Your task to perform on an android device: Open Wikipedia Image 0: 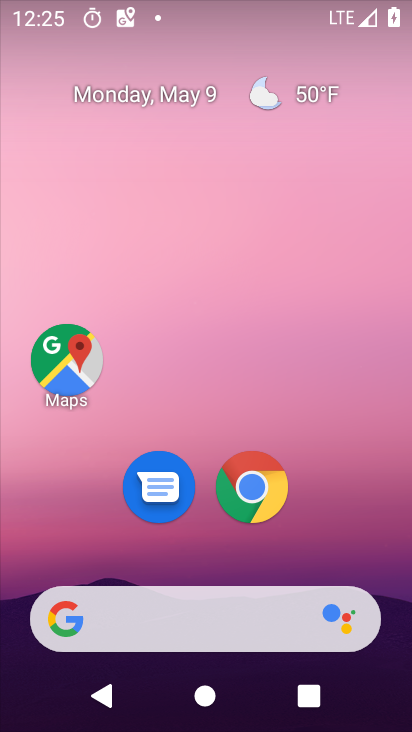
Step 0: press home button
Your task to perform on an android device: Open Wikipedia Image 1: 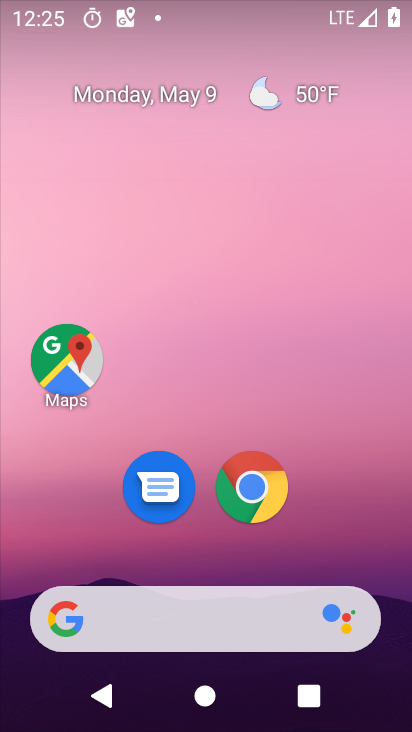
Step 1: drag from (328, 443) to (352, 135)
Your task to perform on an android device: Open Wikipedia Image 2: 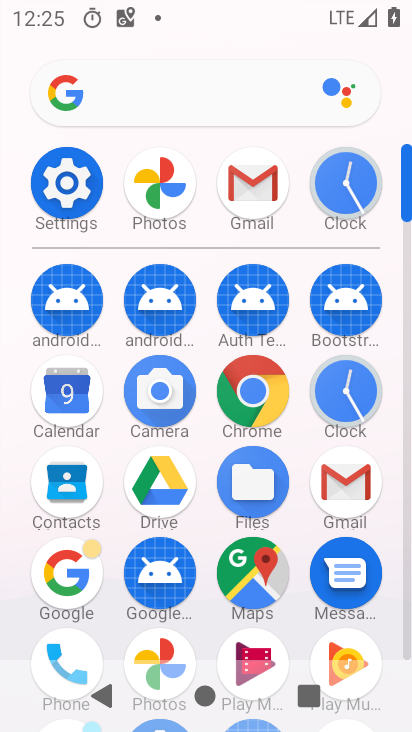
Step 2: click (242, 389)
Your task to perform on an android device: Open Wikipedia Image 3: 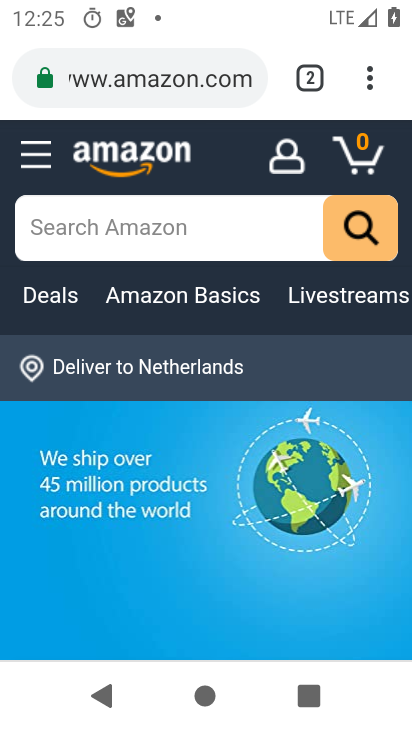
Step 3: click (155, 96)
Your task to perform on an android device: Open Wikipedia Image 4: 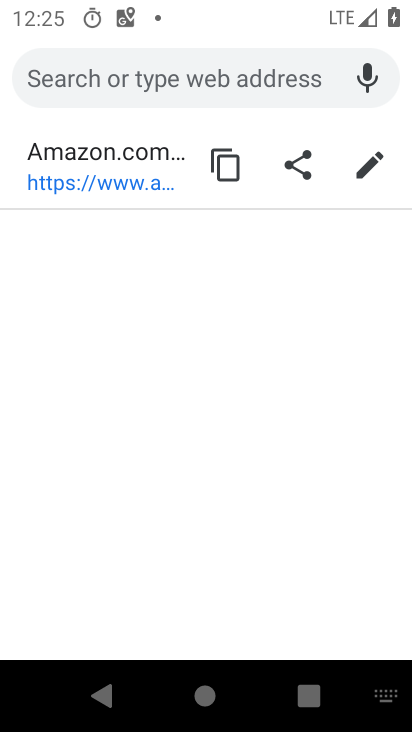
Step 4: type "wikipedia"
Your task to perform on an android device: Open Wikipedia Image 5: 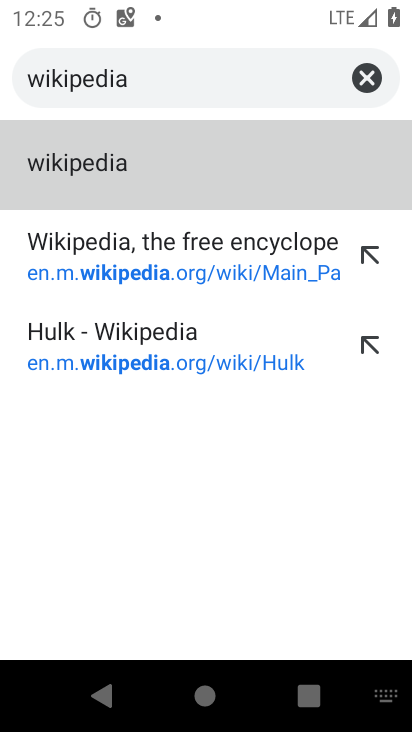
Step 5: click (74, 168)
Your task to perform on an android device: Open Wikipedia Image 6: 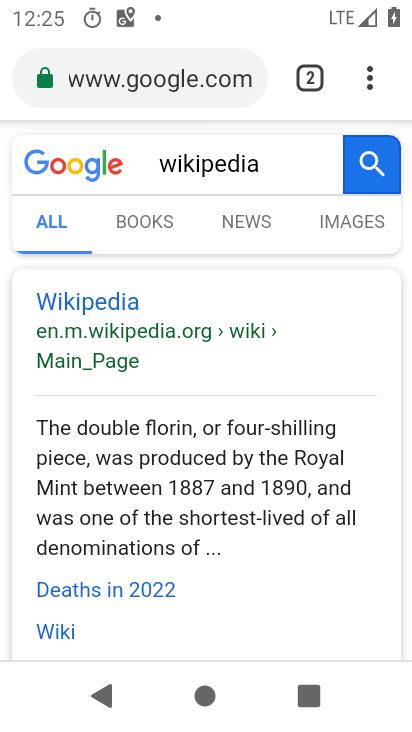
Step 6: click (125, 308)
Your task to perform on an android device: Open Wikipedia Image 7: 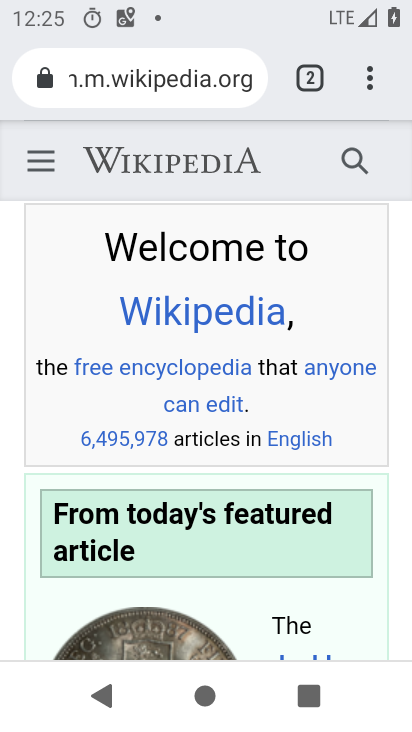
Step 7: task complete